Your task to perform on an android device: Open Google Chrome and click the shortcut for Amazon.com Image 0: 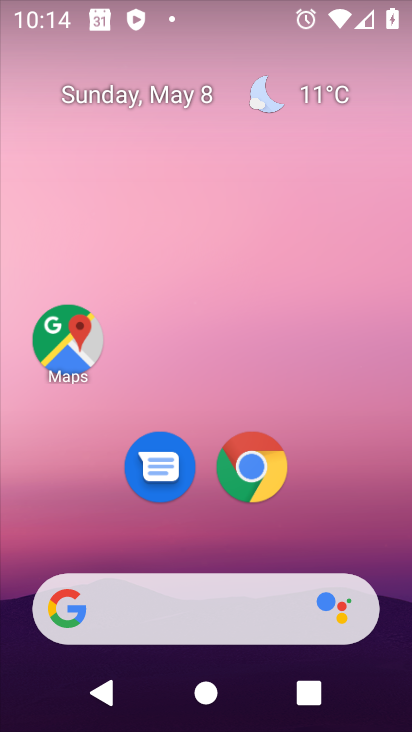
Step 0: click (258, 455)
Your task to perform on an android device: Open Google Chrome and click the shortcut for Amazon.com Image 1: 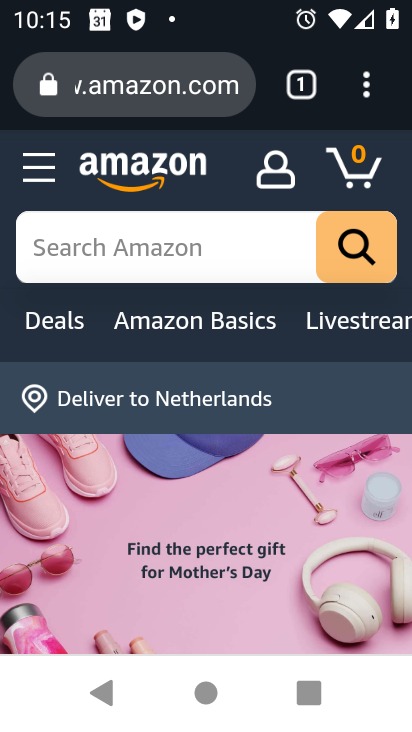
Step 1: task complete